Your task to perform on an android device: Open the Play Movies app and select the watchlist tab. Image 0: 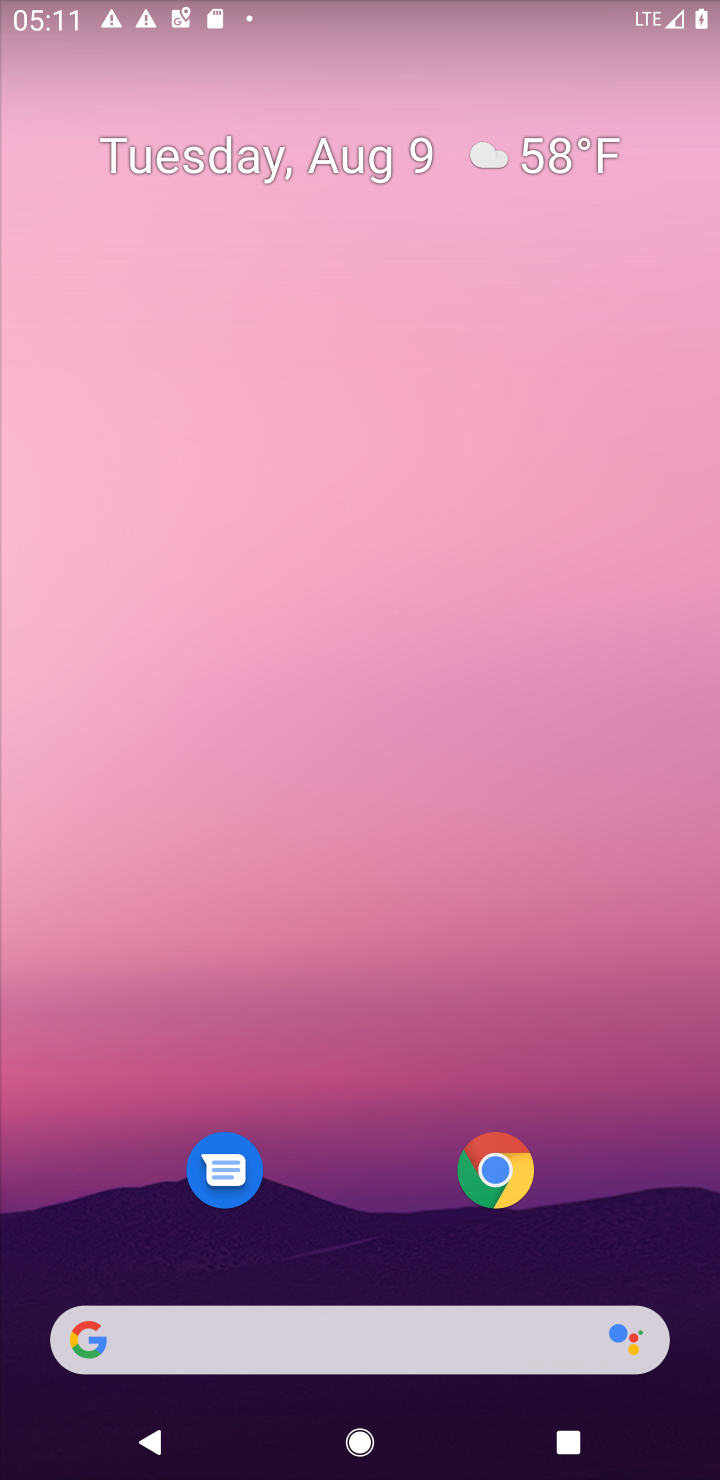
Step 0: press home button
Your task to perform on an android device: Open the Play Movies app and select the watchlist tab. Image 1: 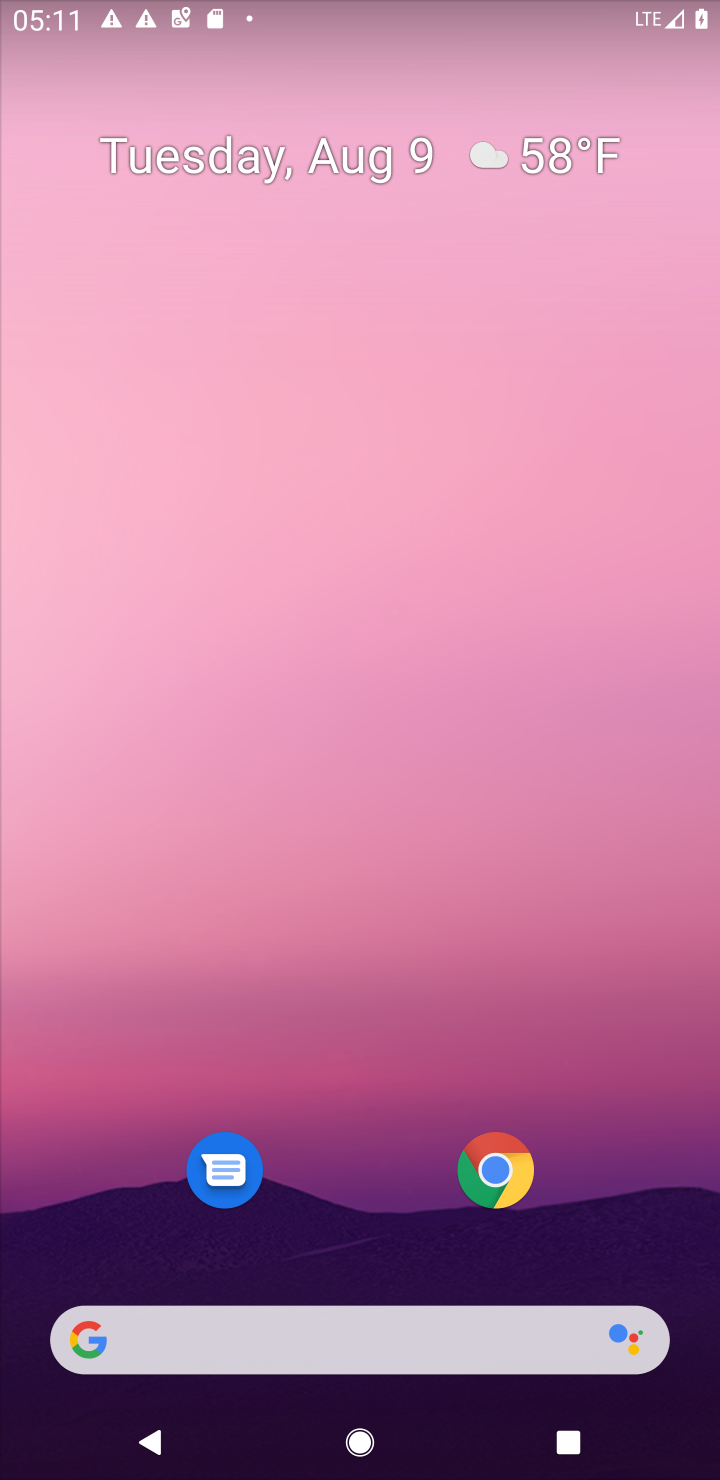
Step 1: drag from (368, 956) to (575, 2)
Your task to perform on an android device: Open the Play Movies app and select the watchlist tab. Image 2: 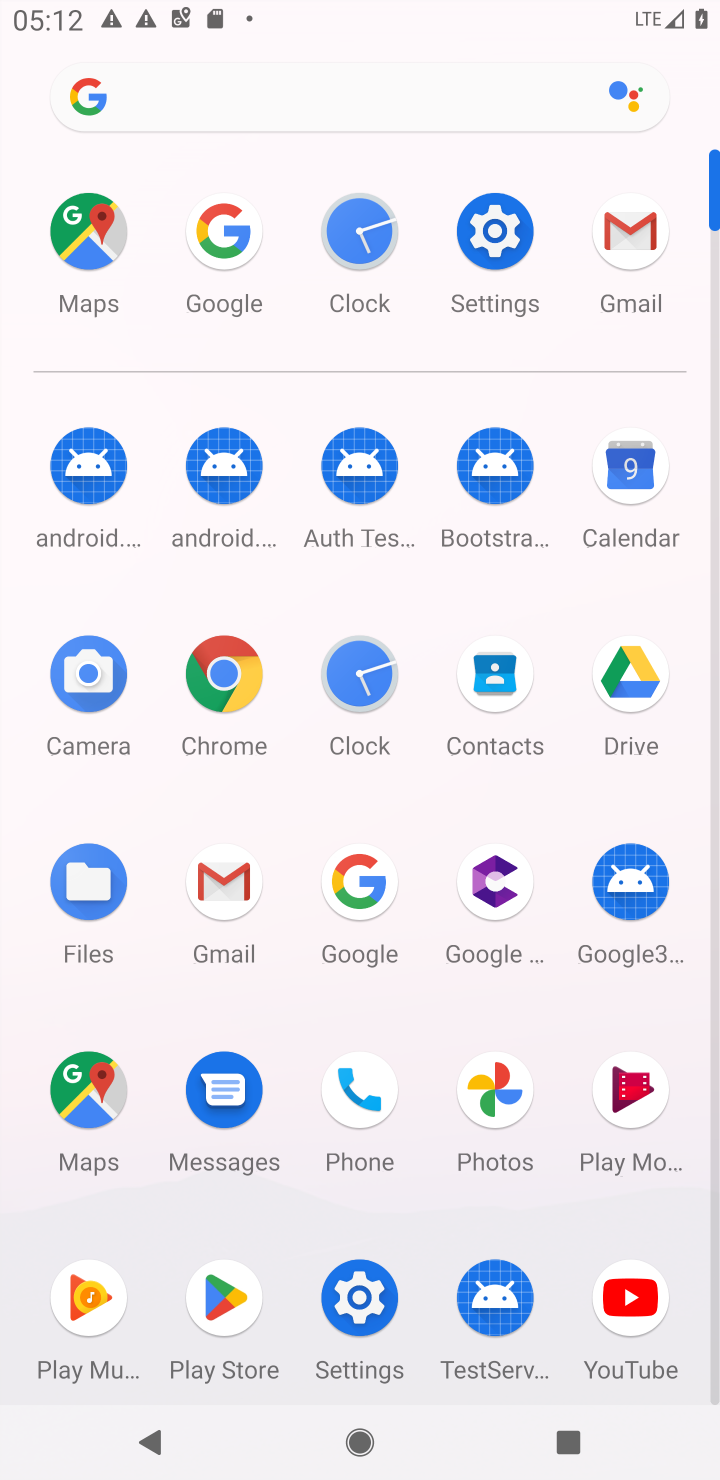
Step 2: click (620, 1067)
Your task to perform on an android device: Open the Play Movies app and select the watchlist tab. Image 3: 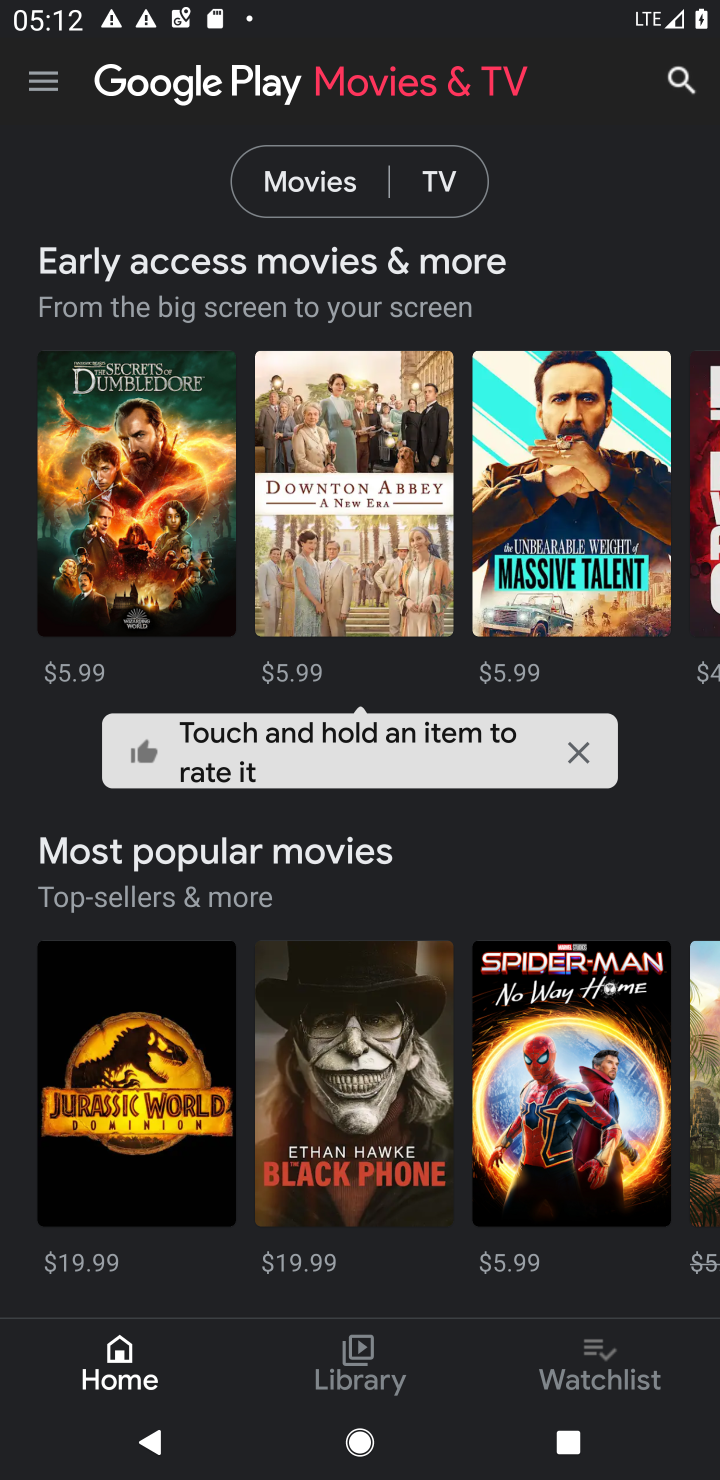
Step 3: click (139, 1439)
Your task to perform on an android device: Open the Play Movies app and select the watchlist tab. Image 4: 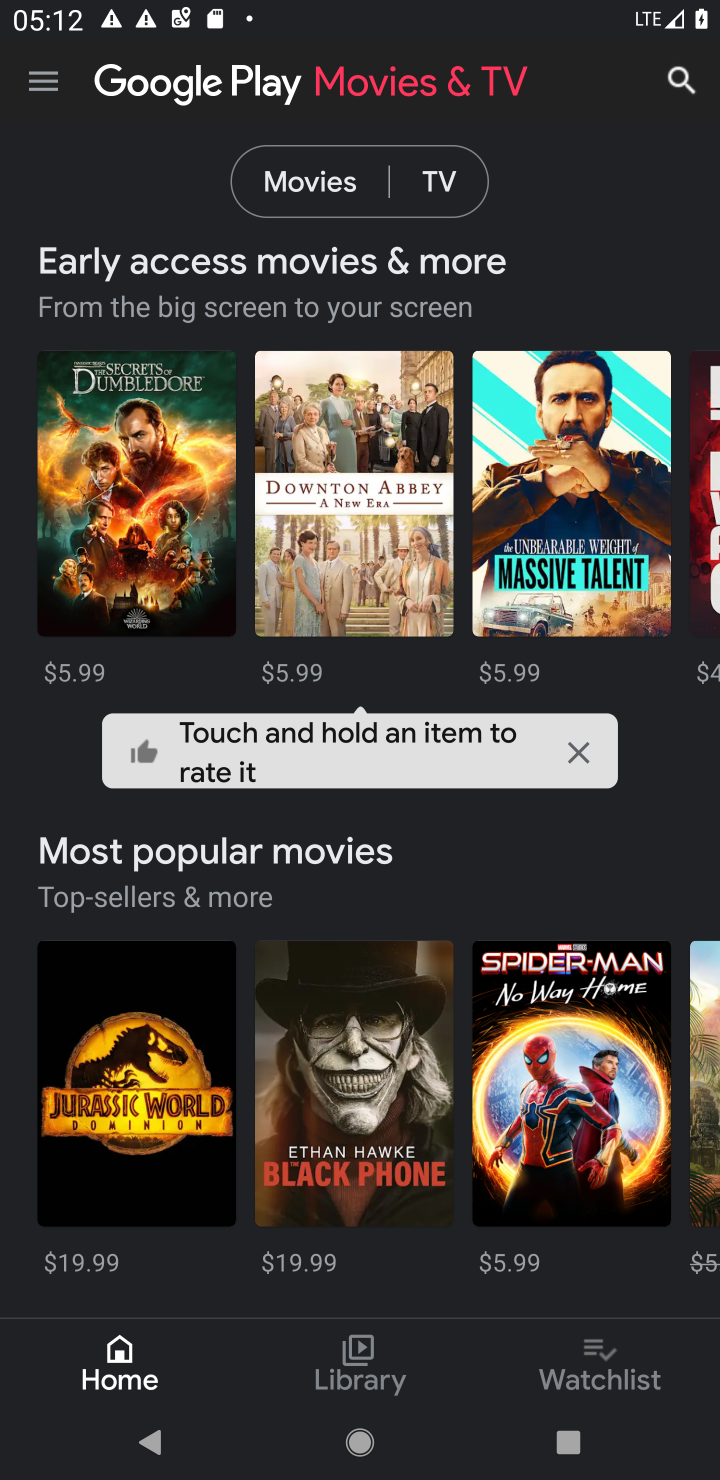
Step 4: click (610, 1342)
Your task to perform on an android device: Open the Play Movies app and select the watchlist tab. Image 5: 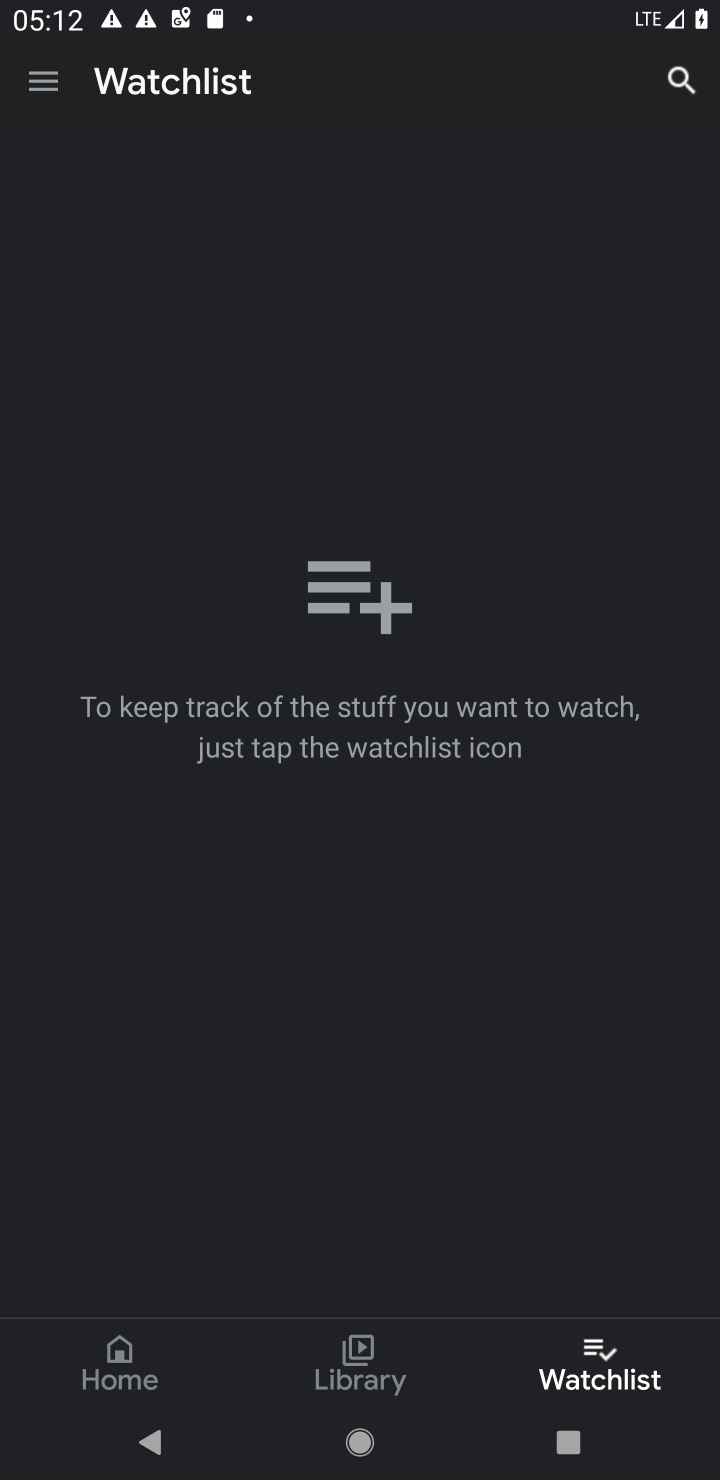
Step 5: task complete